Your task to perform on an android device: open app "The Home Depot" Image 0: 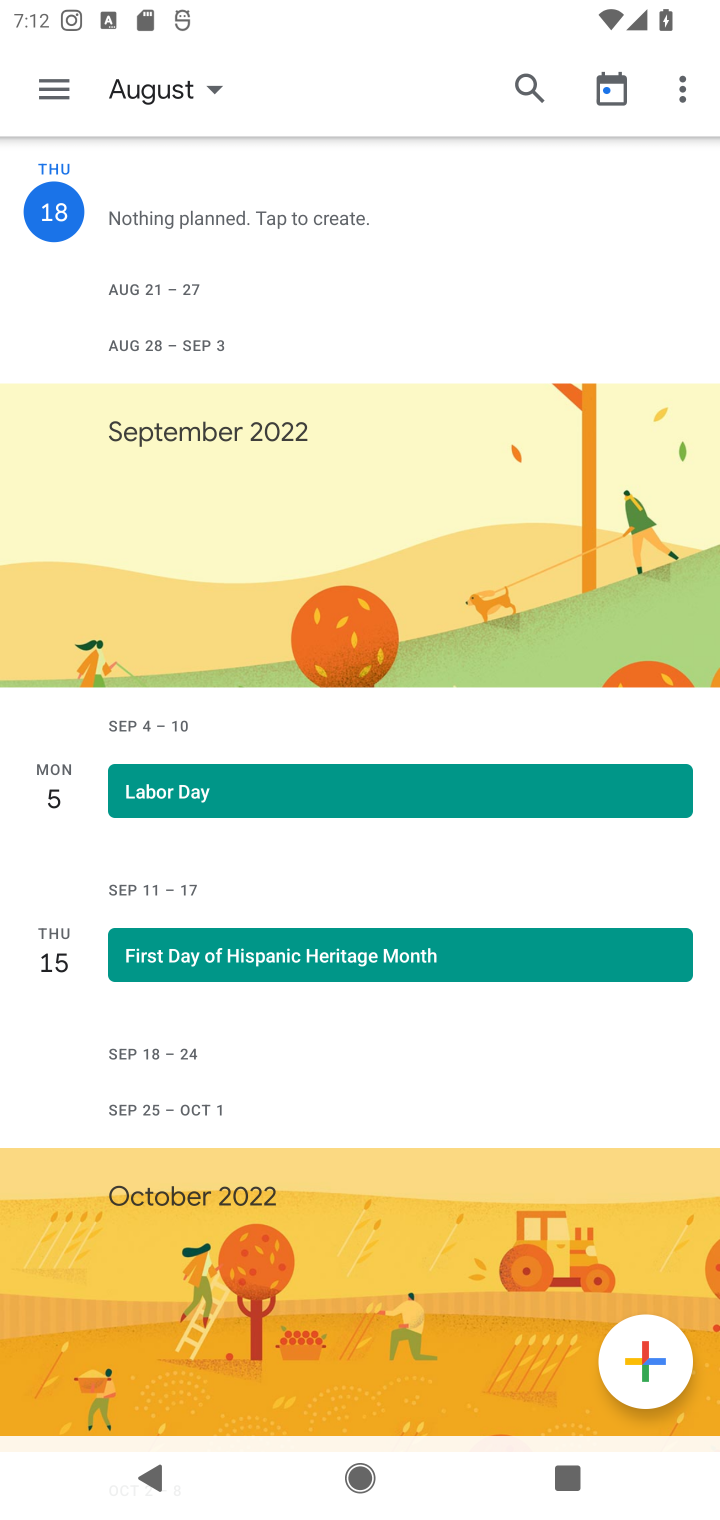
Step 0: press home button
Your task to perform on an android device: open app "The Home Depot" Image 1: 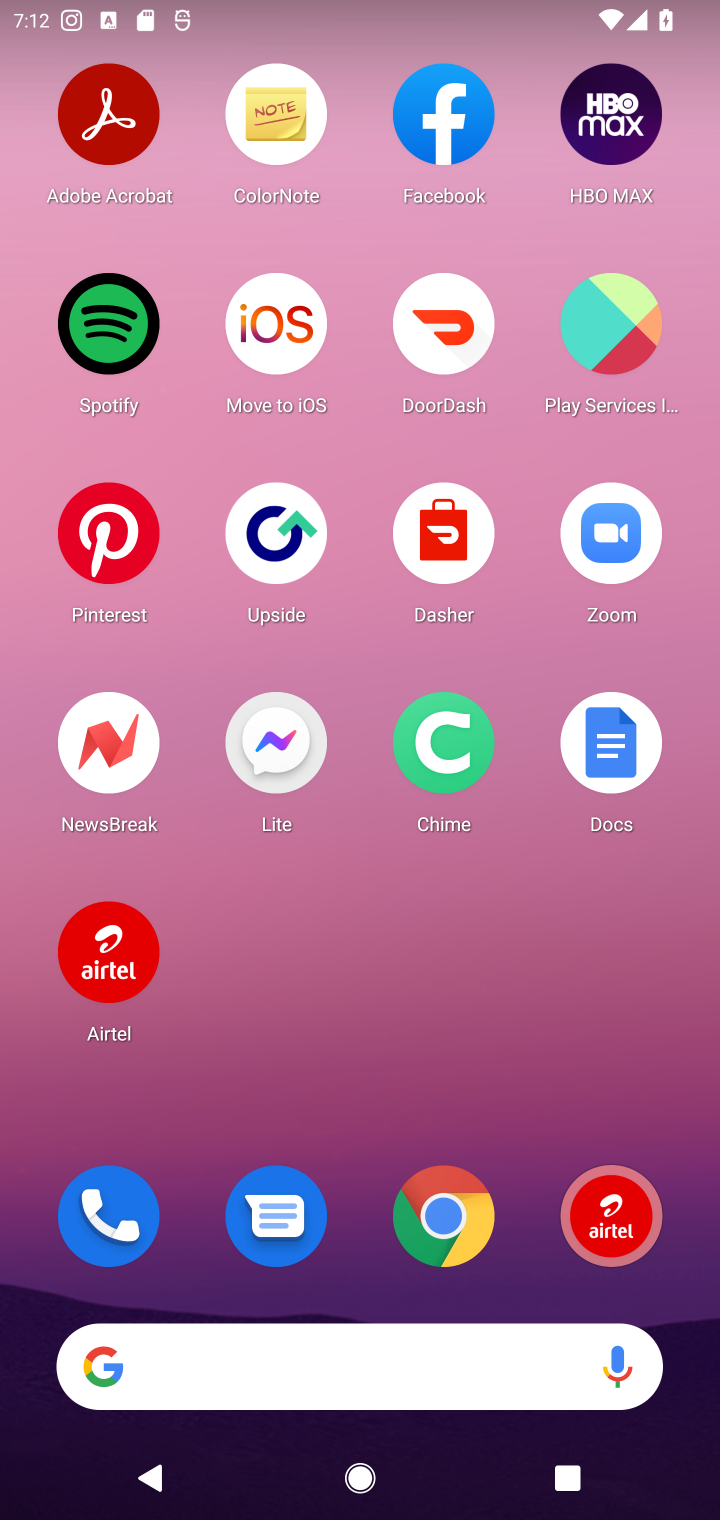
Step 1: drag from (371, 971) to (371, 136)
Your task to perform on an android device: open app "The Home Depot" Image 2: 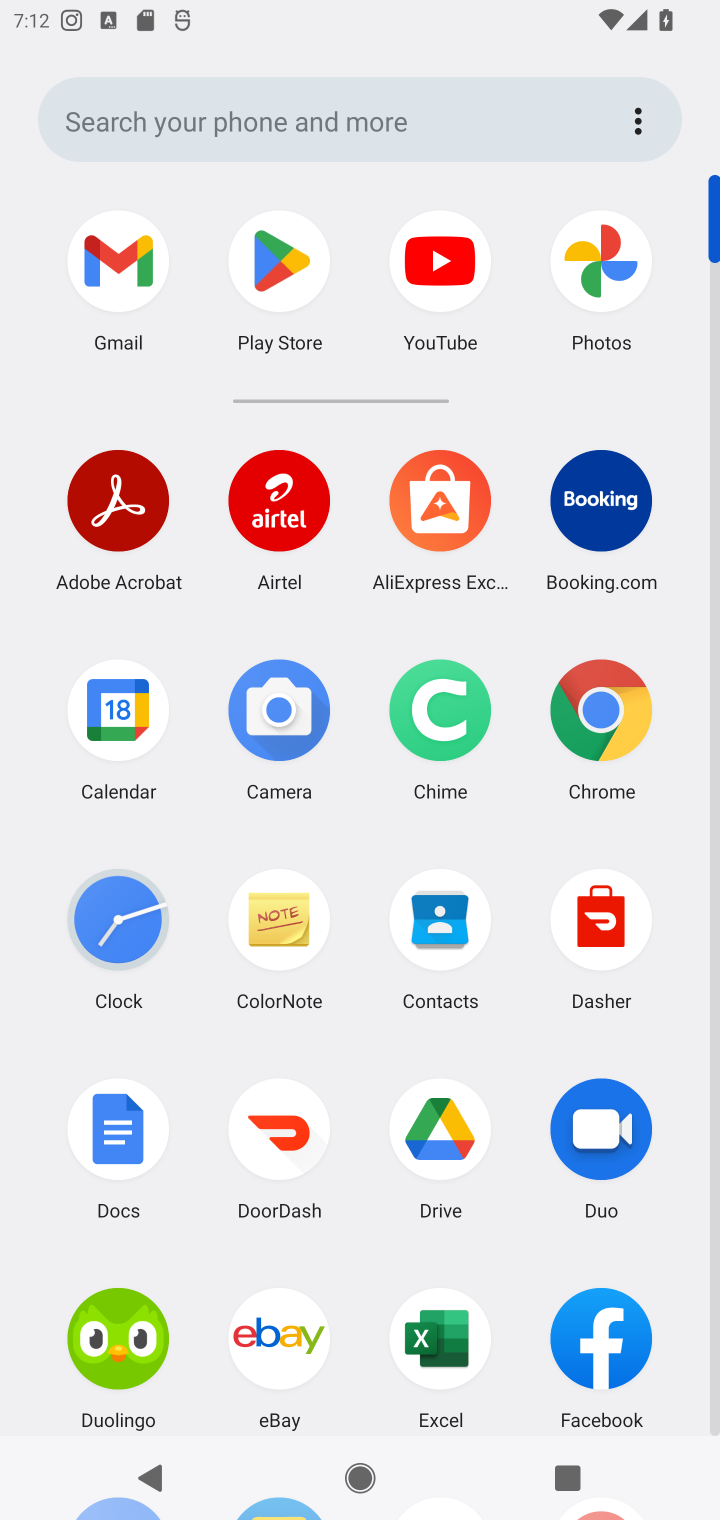
Step 2: click (309, 267)
Your task to perform on an android device: open app "The Home Depot" Image 3: 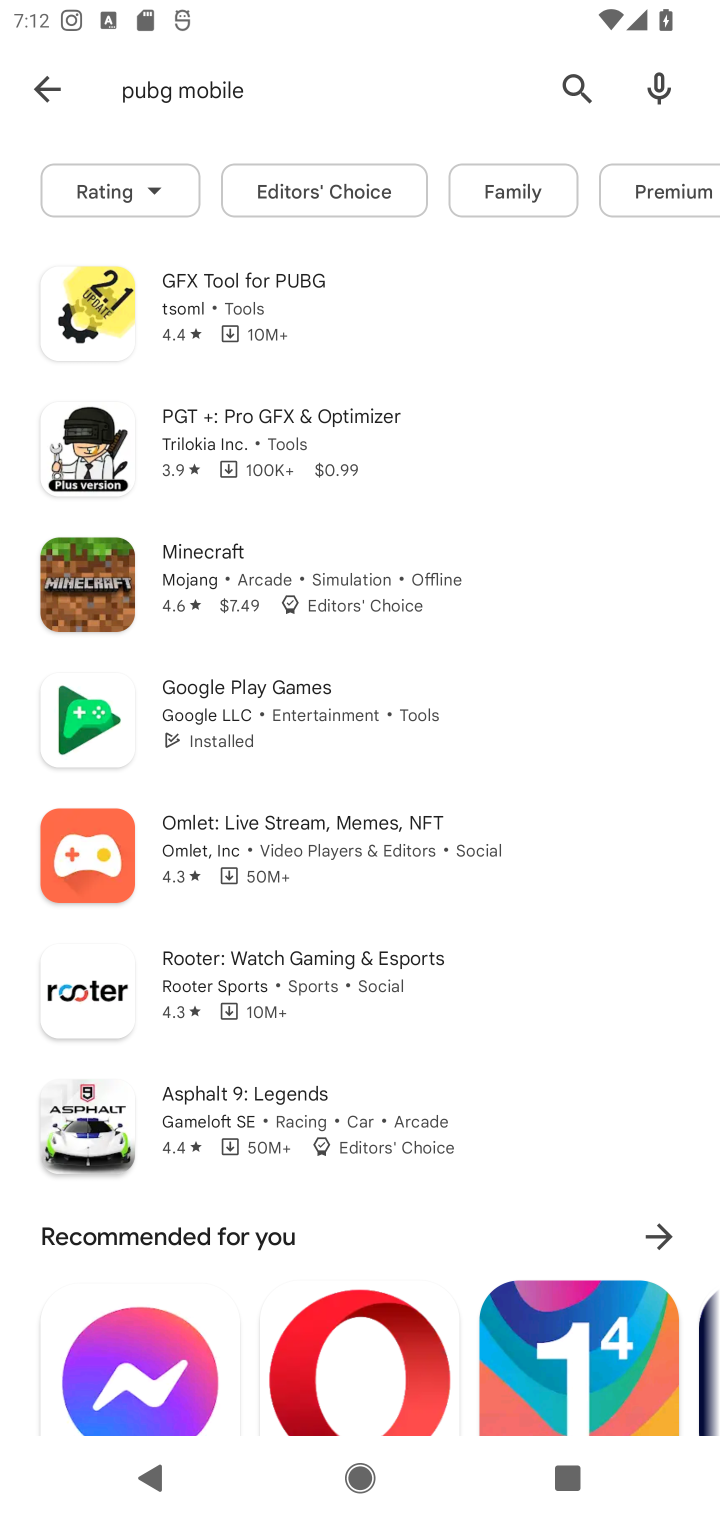
Step 3: click (566, 101)
Your task to perform on an android device: open app "The Home Depot" Image 4: 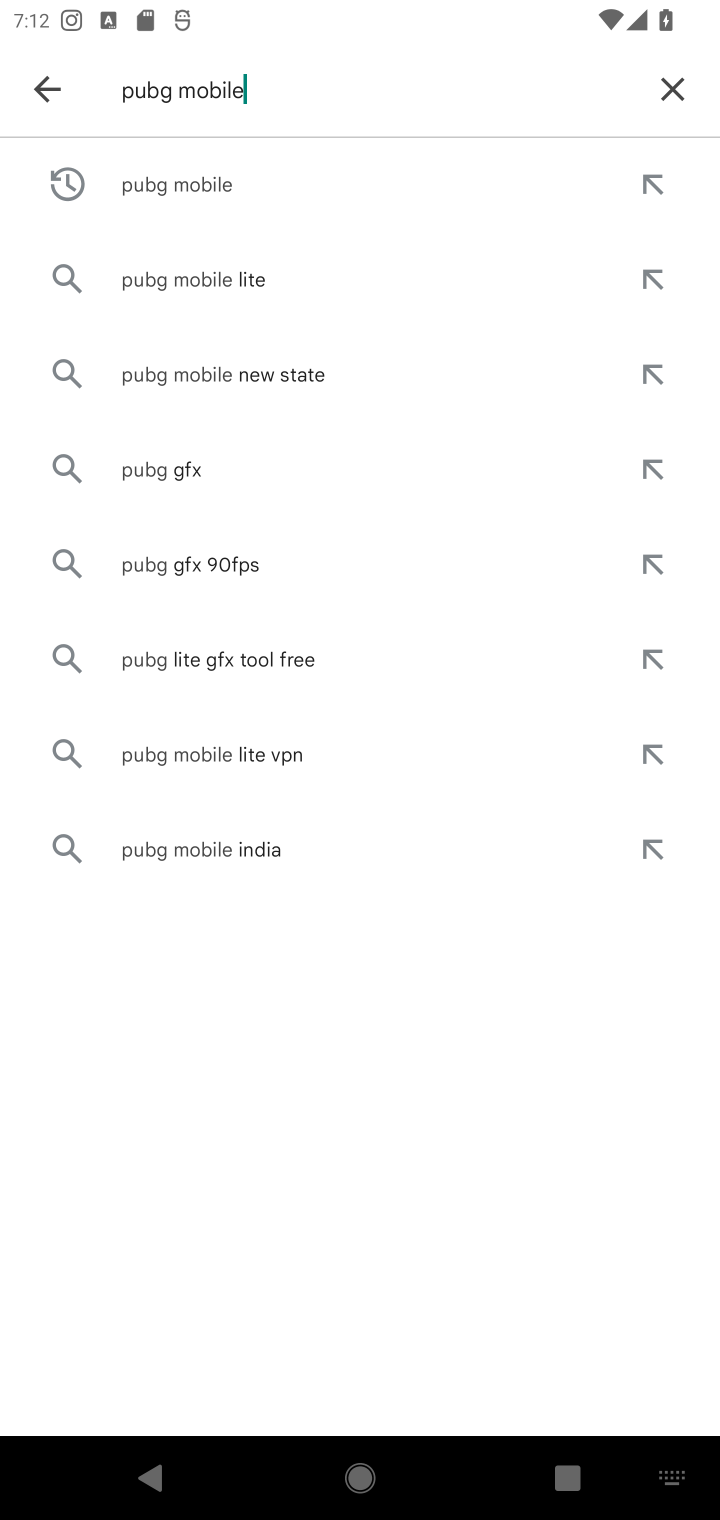
Step 4: click (668, 69)
Your task to perform on an android device: open app "The Home Depot" Image 5: 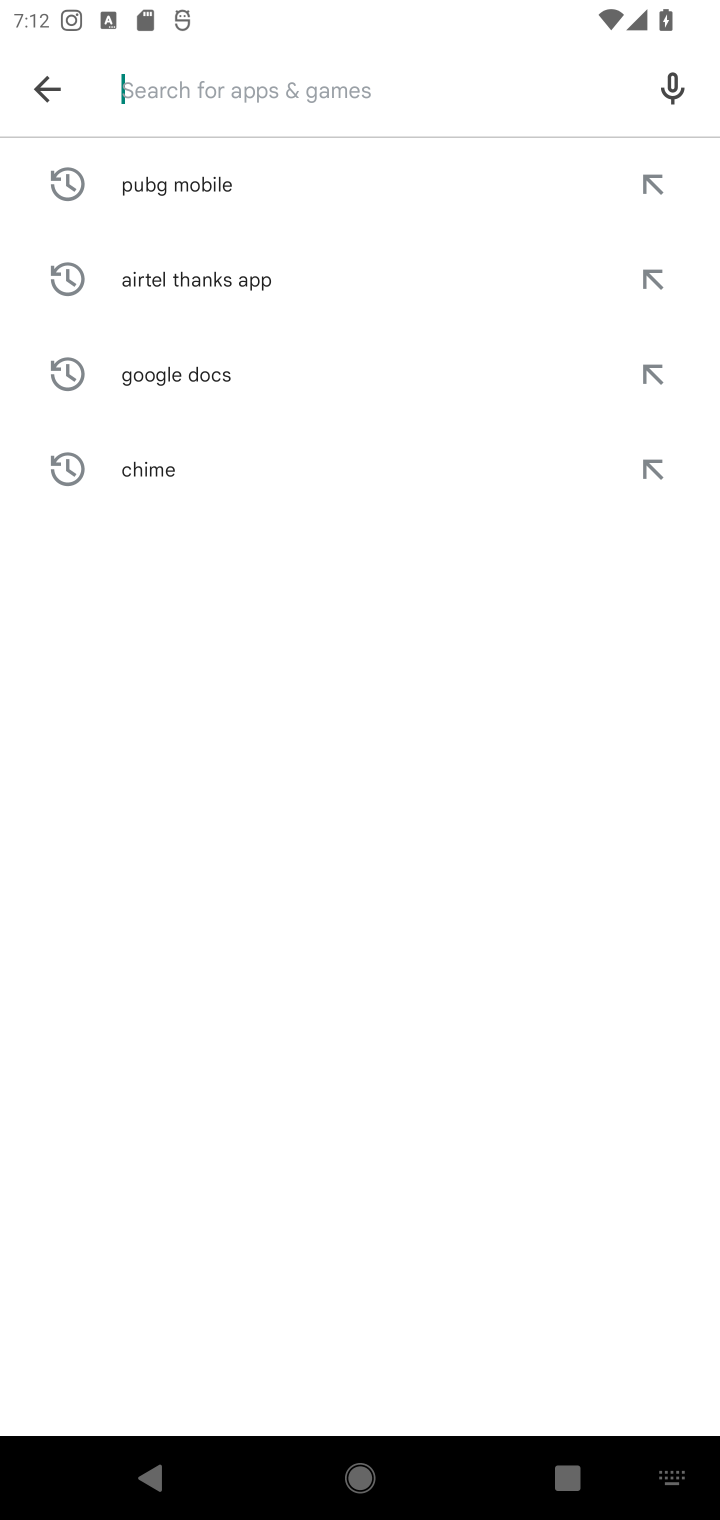
Step 5: type "The Home Depot"
Your task to perform on an android device: open app "The Home Depot" Image 6: 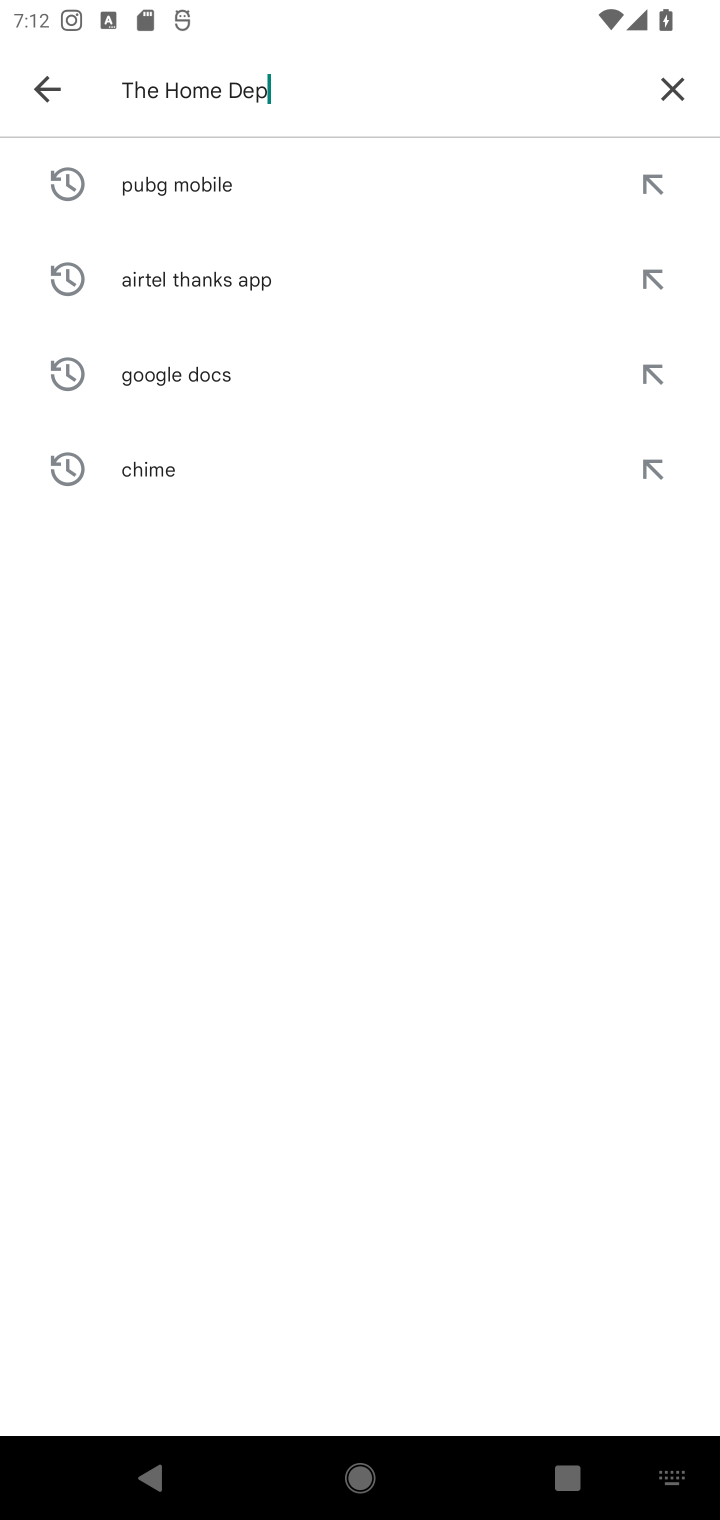
Step 6: type ""
Your task to perform on an android device: open app "The Home Depot" Image 7: 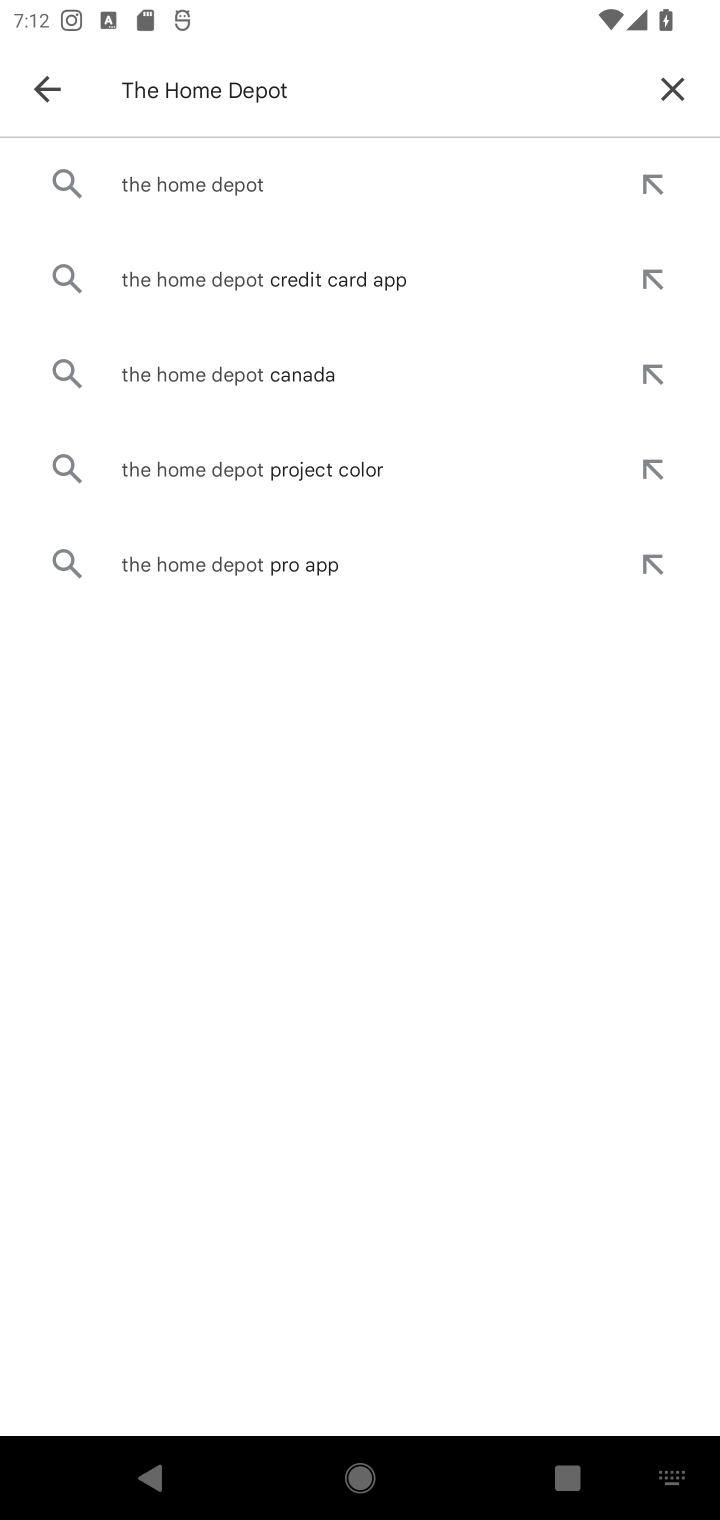
Step 7: click (303, 191)
Your task to perform on an android device: open app "The Home Depot" Image 8: 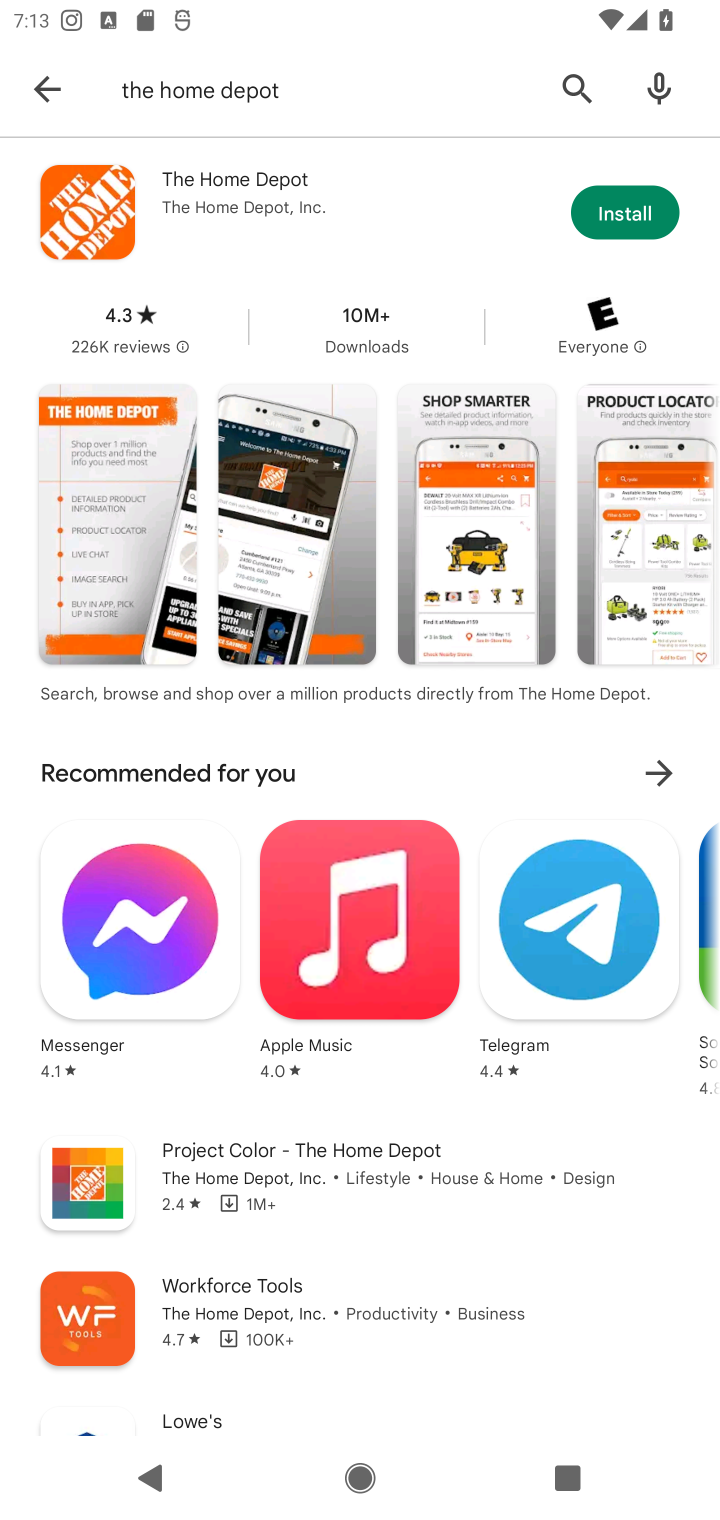
Step 8: task complete